Your task to perform on an android device: check data usage Image 0: 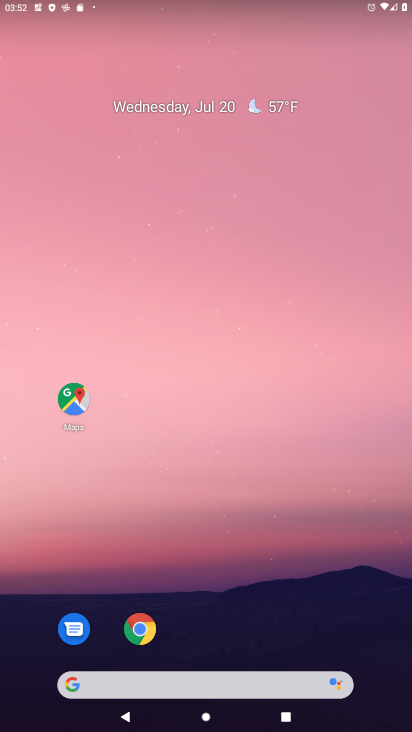
Step 0: drag from (393, 661) to (344, 61)
Your task to perform on an android device: check data usage Image 1: 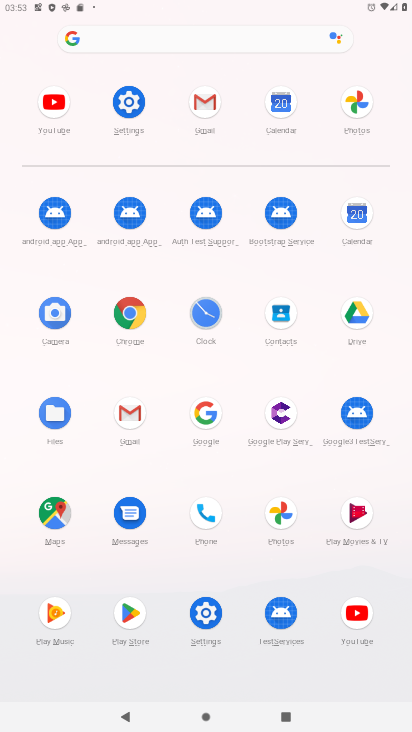
Step 1: click (204, 612)
Your task to perform on an android device: check data usage Image 2: 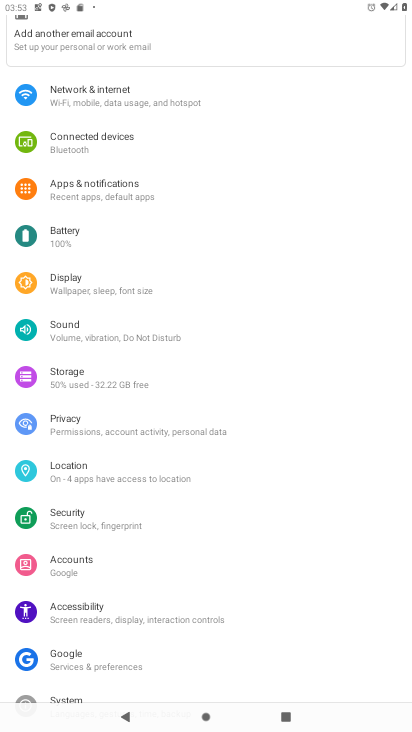
Step 2: click (79, 87)
Your task to perform on an android device: check data usage Image 3: 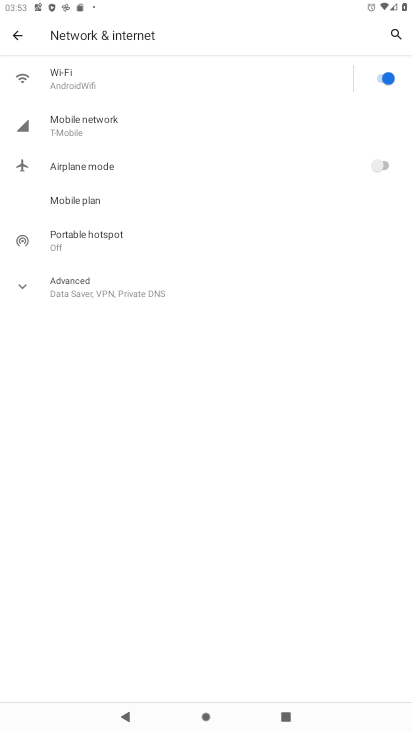
Step 3: click (84, 121)
Your task to perform on an android device: check data usage Image 4: 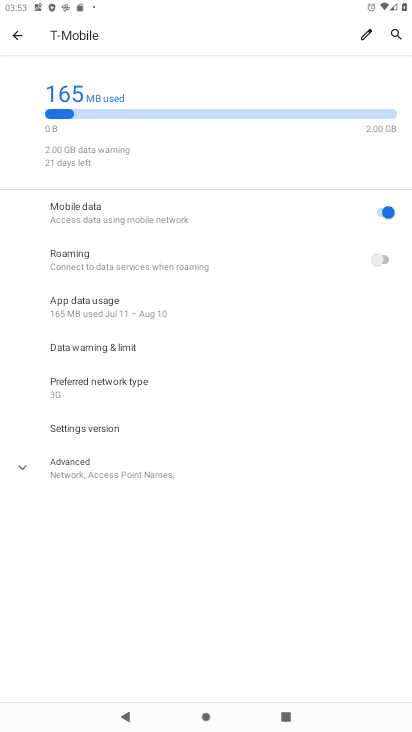
Step 4: click (19, 471)
Your task to perform on an android device: check data usage Image 5: 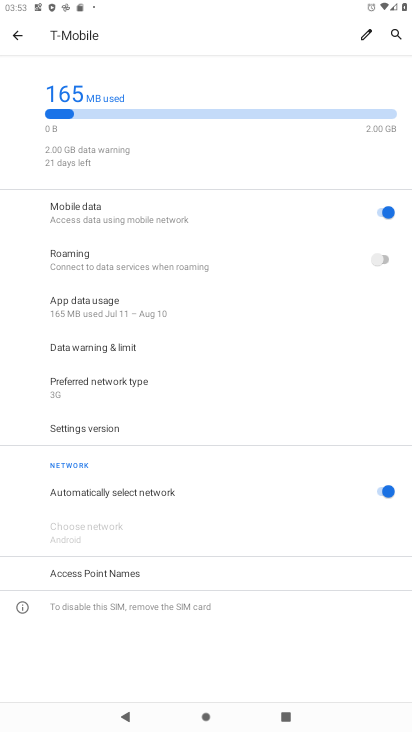
Step 5: task complete